Your task to perform on an android device: Open internet settings Image 0: 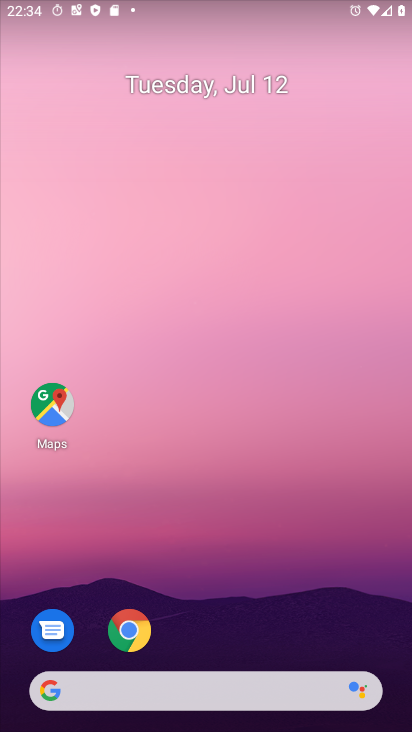
Step 0: drag from (238, 611) to (233, 7)
Your task to perform on an android device: Open internet settings Image 1: 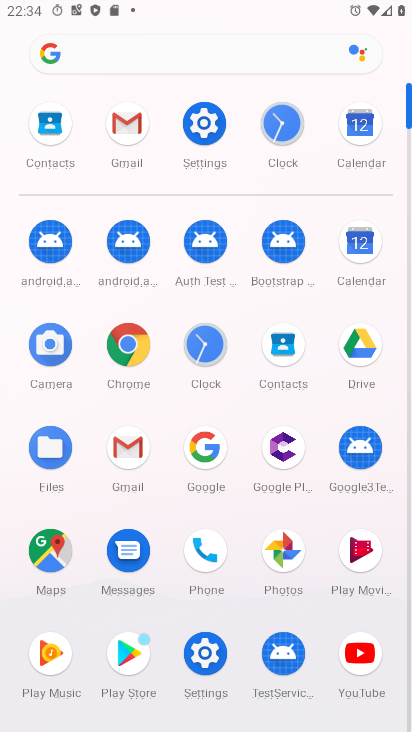
Step 1: click (197, 111)
Your task to perform on an android device: Open internet settings Image 2: 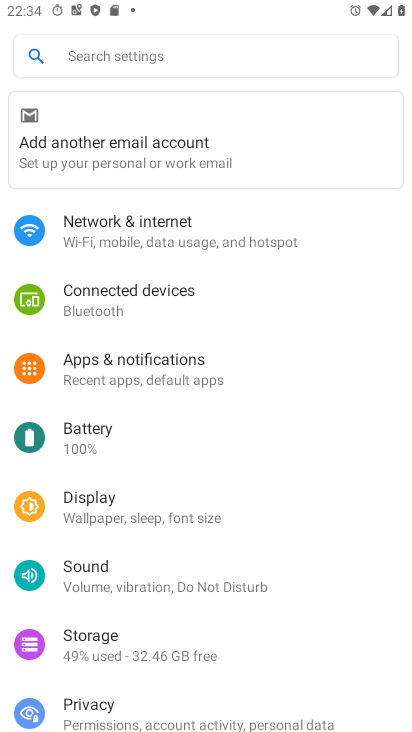
Step 2: click (171, 234)
Your task to perform on an android device: Open internet settings Image 3: 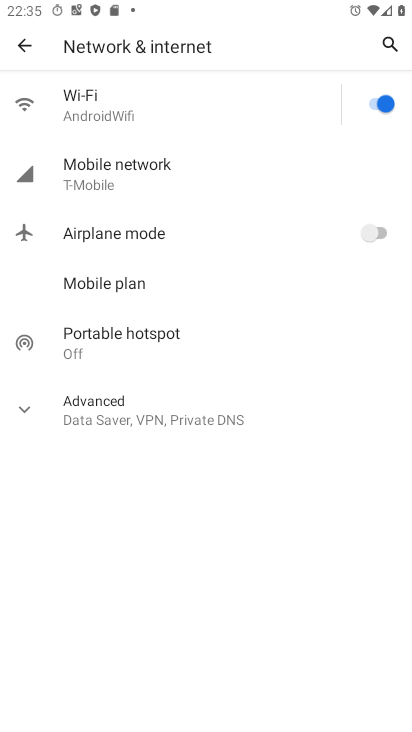
Step 3: task complete